Your task to perform on an android device: Play the last video I watched on Youtube Image 0: 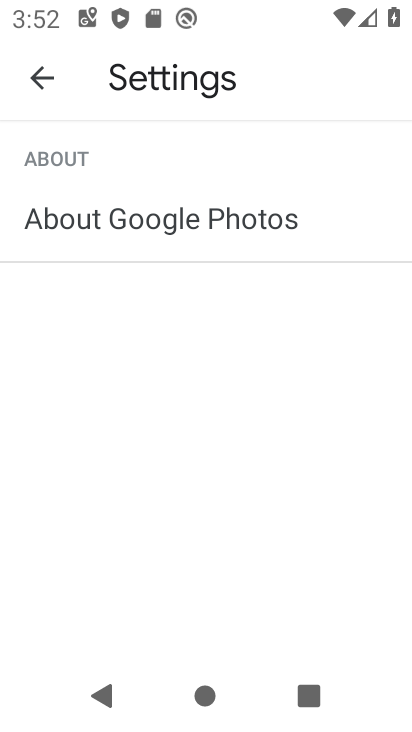
Step 0: press home button
Your task to perform on an android device: Play the last video I watched on Youtube Image 1: 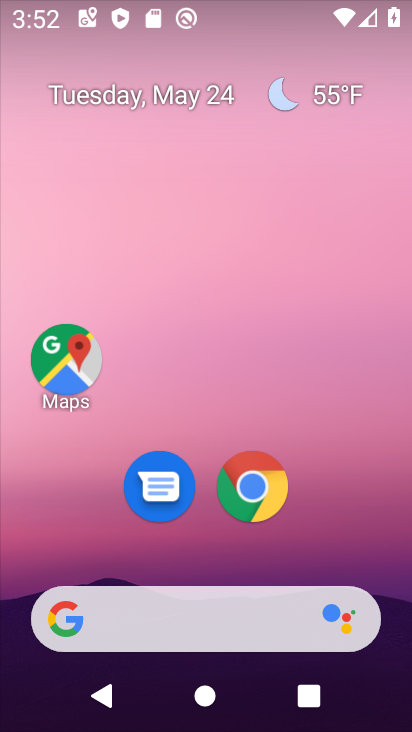
Step 1: drag from (307, 542) to (316, 176)
Your task to perform on an android device: Play the last video I watched on Youtube Image 2: 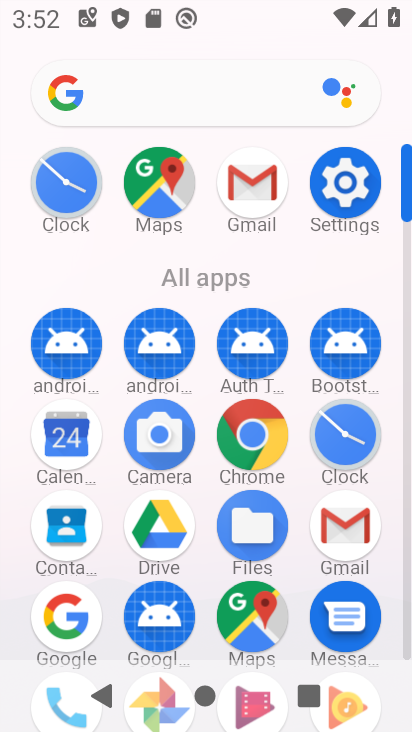
Step 2: drag from (306, 591) to (313, 235)
Your task to perform on an android device: Play the last video I watched on Youtube Image 3: 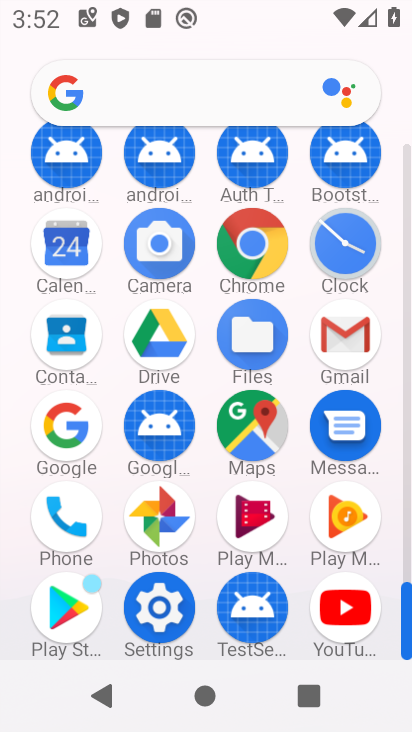
Step 3: click (356, 602)
Your task to perform on an android device: Play the last video I watched on Youtube Image 4: 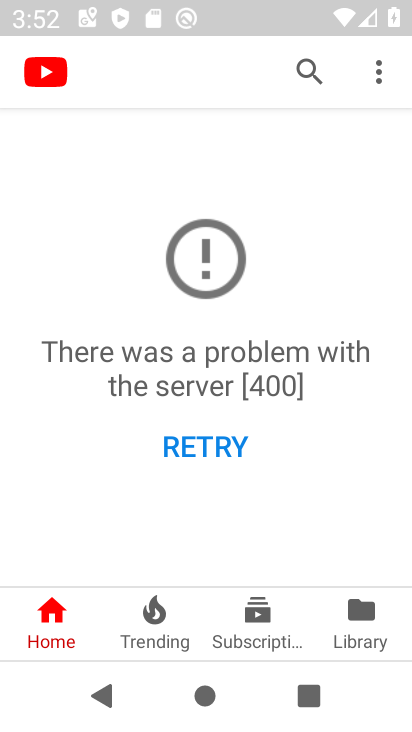
Step 4: click (215, 431)
Your task to perform on an android device: Play the last video I watched on Youtube Image 5: 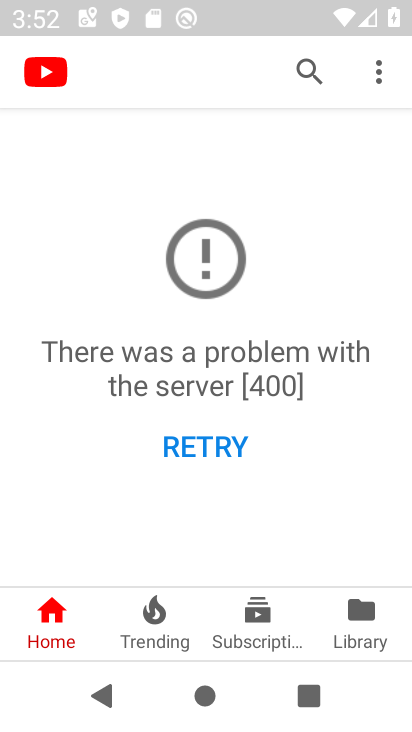
Step 5: click (215, 431)
Your task to perform on an android device: Play the last video I watched on Youtube Image 6: 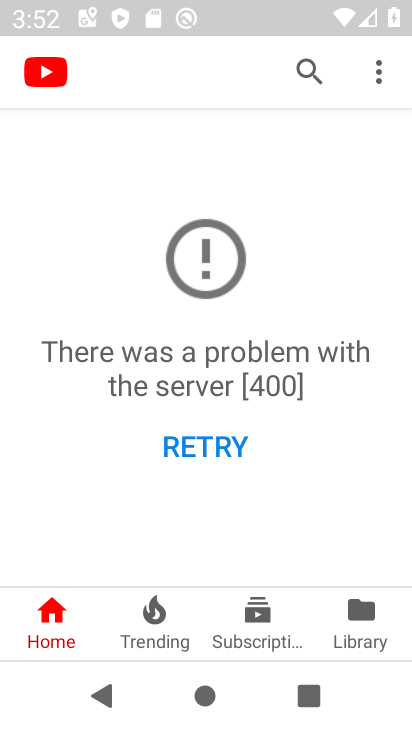
Step 6: click (215, 431)
Your task to perform on an android device: Play the last video I watched on Youtube Image 7: 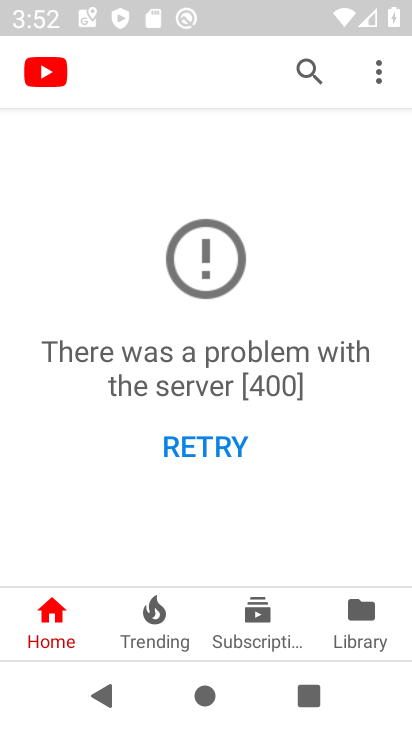
Step 7: click (215, 431)
Your task to perform on an android device: Play the last video I watched on Youtube Image 8: 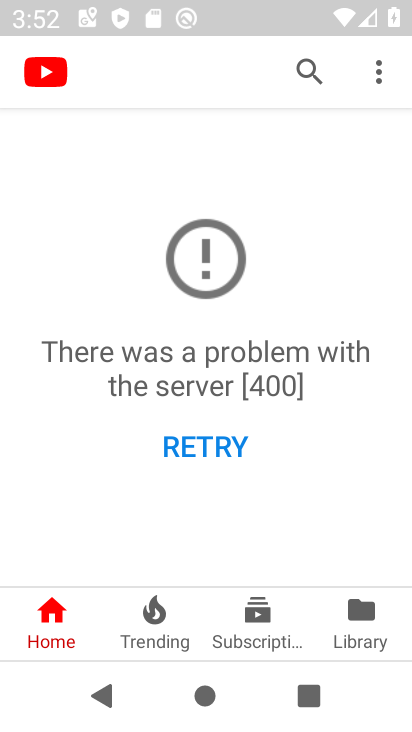
Step 8: click (209, 441)
Your task to perform on an android device: Play the last video I watched on Youtube Image 9: 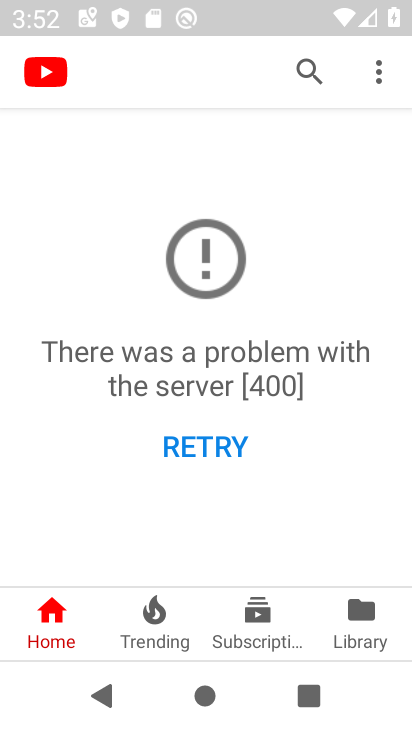
Step 9: click (210, 440)
Your task to perform on an android device: Play the last video I watched on Youtube Image 10: 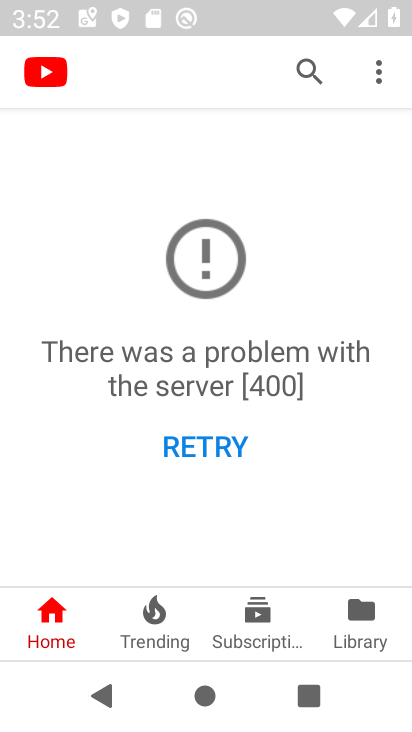
Step 10: click (211, 439)
Your task to perform on an android device: Play the last video I watched on Youtube Image 11: 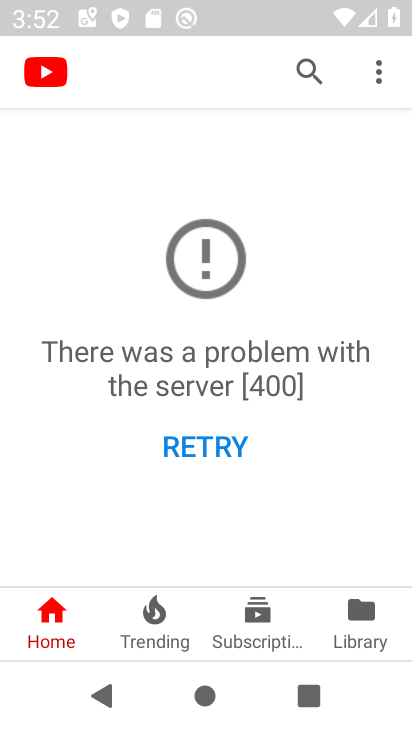
Step 11: click (211, 439)
Your task to perform on an android device: Play the last video I watched on Youtube Image 12: 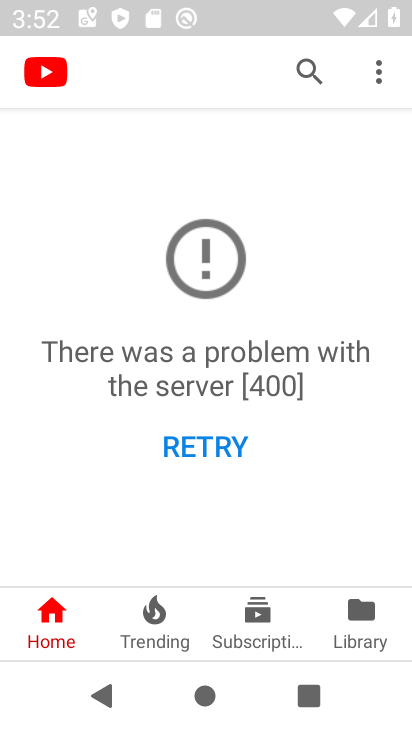
Step 12: click (365, 611)
Your task to perform on an android device: Play the last video I watched on Youtube Image 13: 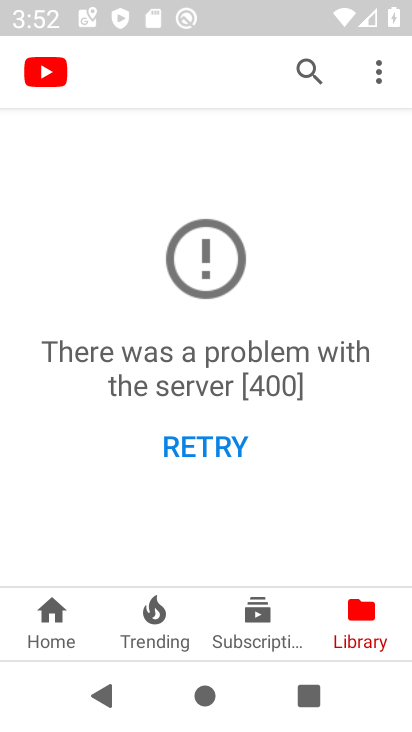
Step 13: click (335, 608)
Your task to perform on an android device: Play the last video I watched on Youtube Image 14: 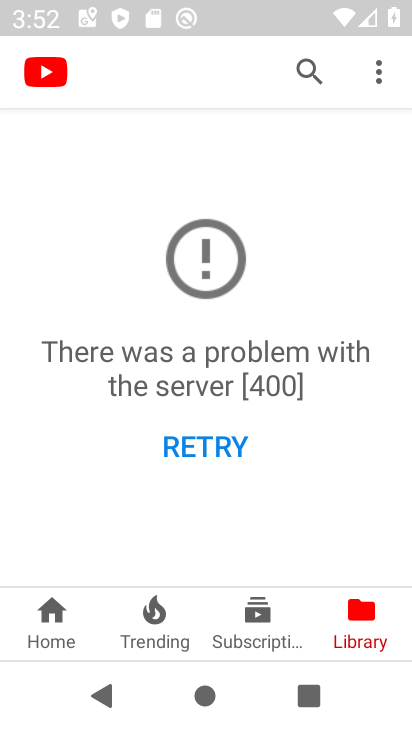
Step 14: click (210, 434)
Your task to perform on an android device: Play the last video I watched on Youtube Image 15: 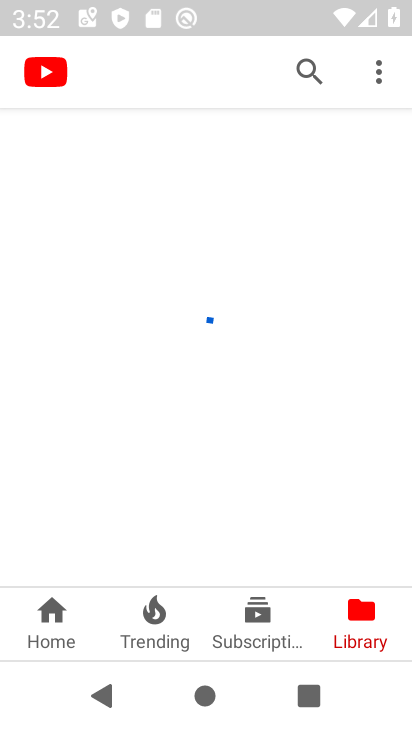
Step 15: click (210, 434)
Your task to perform on an android device: Play the last video I watched on Youtube Image 16: 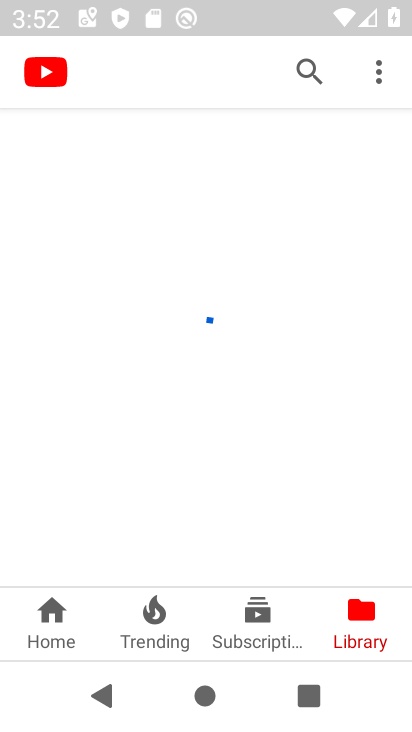
Step 16: click (210, 434)
Your task to perform on an android device: Play the last video I watched on Youtube Image 17: 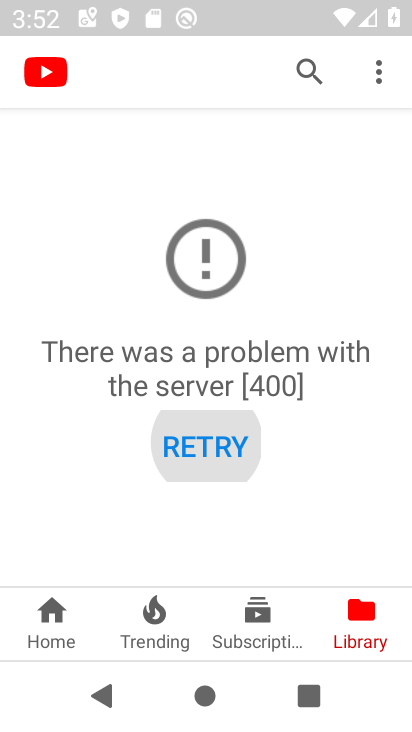
Step 17: click (210, 434)
Your task to perform on an android device: Play the last video I watched on Youtube Image 18: 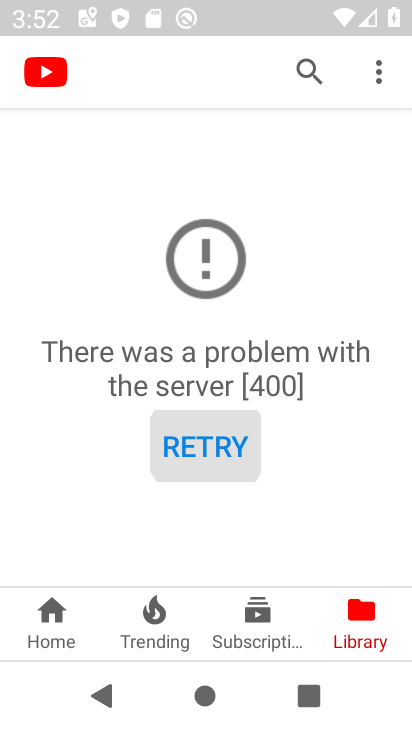
Step 18: click (210, 434)
Your task to perform on an android device: Play the last video I watched on Youtube Image 19: 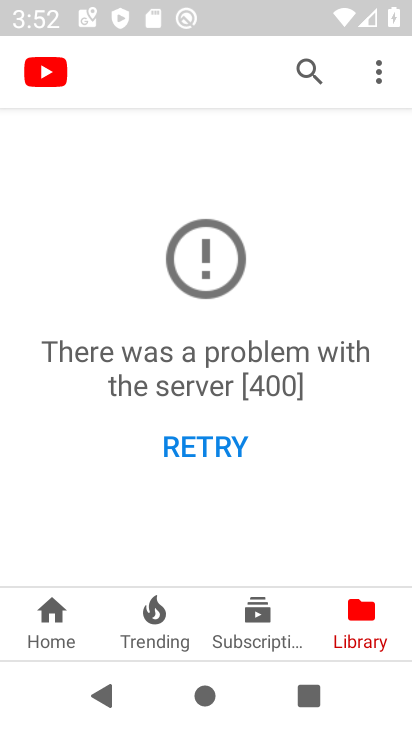
Step 19: click (210, 434)
Your task to perform on an android device: Play the last video I watched on Youtube Image 20: 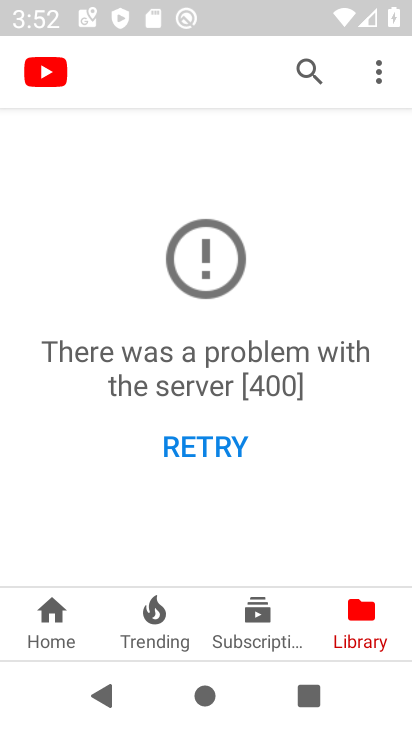
Step 20: click (210, 434)
Your task to perform on an android device: Play the last video I watched on Youtube Image 21: 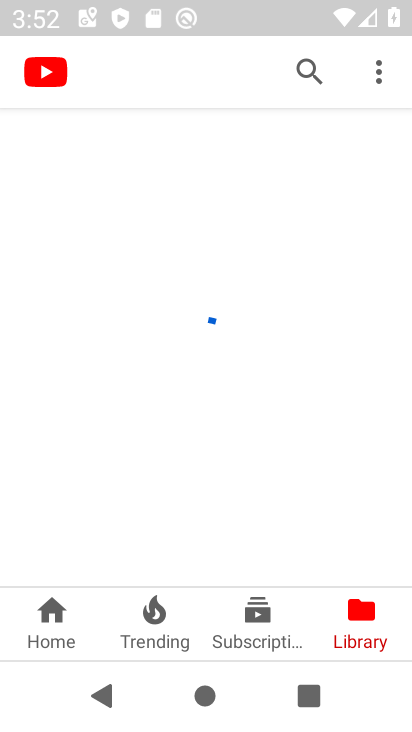
Step 21: click (210, 434)
Your task to perform on an android device: Play the last video I watched on Youtube Image 22: 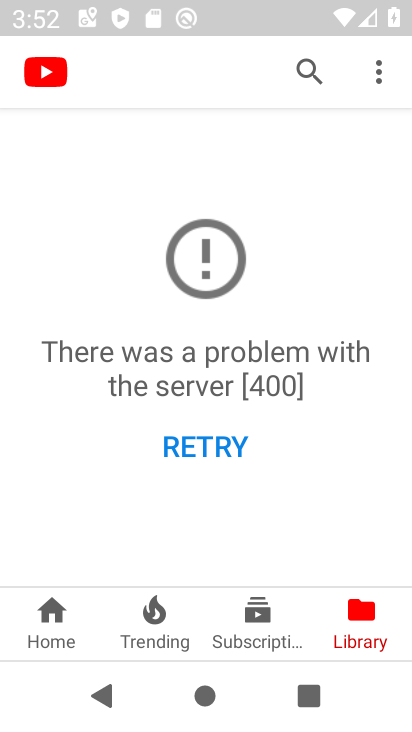
Step 22: click (210, 434)
Your task to perform on an android device: Play the last video I watched on Youtube Image 23: 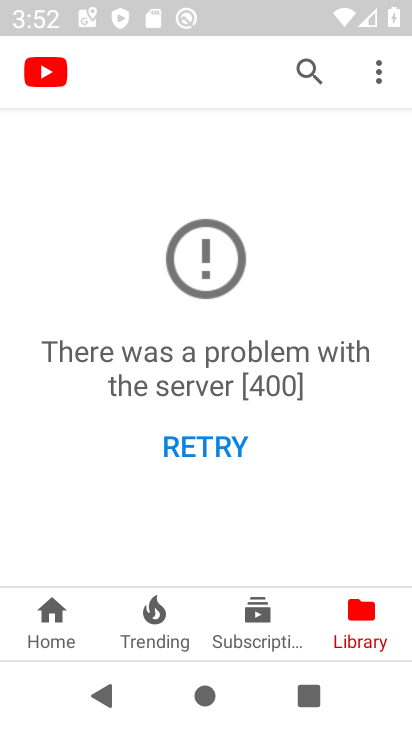
Step 23: click (210, 434)
Your task to perform on an android device: Play the last video I watched on Youtube Image 24: 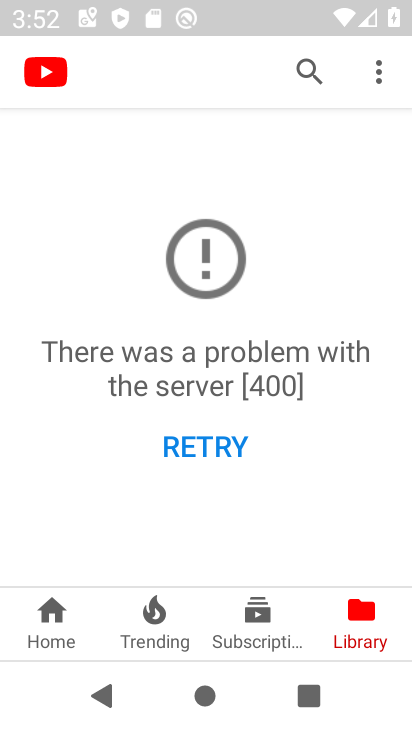
Step 24: task complete